Your task to perform on an android device: remove spam from my inbox in the gmail app Image 0: 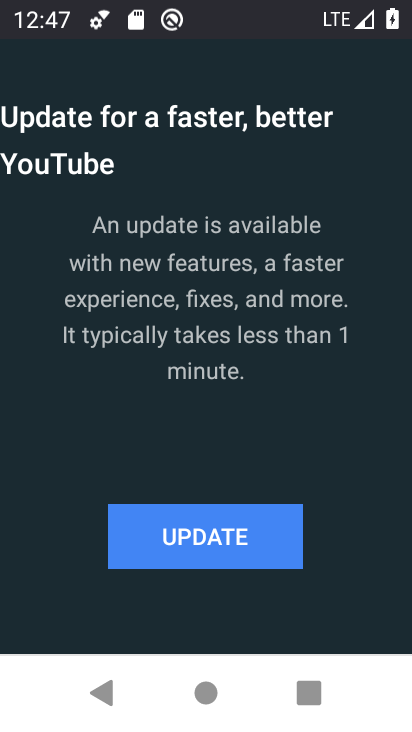
Step 0: press home button
Your task to perform on an android device: remove spam from my inbox in the gmail app Image 1: 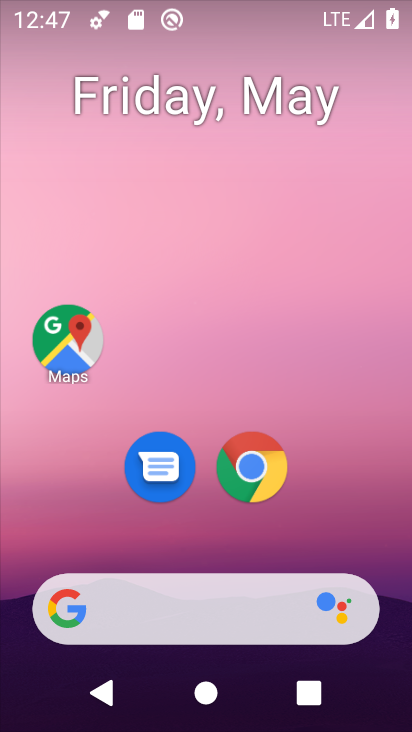
Step 1: drag from (351, 507) to (371, 119)
Your task to perform on an android device: remove spam from my inbox in the gmail app Image 2: 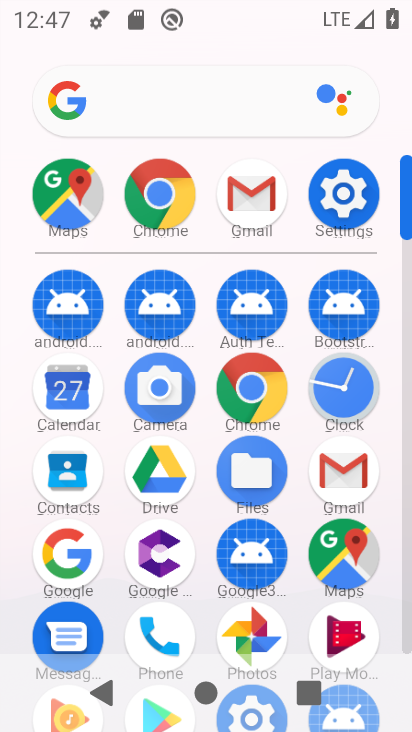
Step 2: click (268, 206)
Your task to perform on an android device: remove spam from my inbox in the gmail app Image 3: 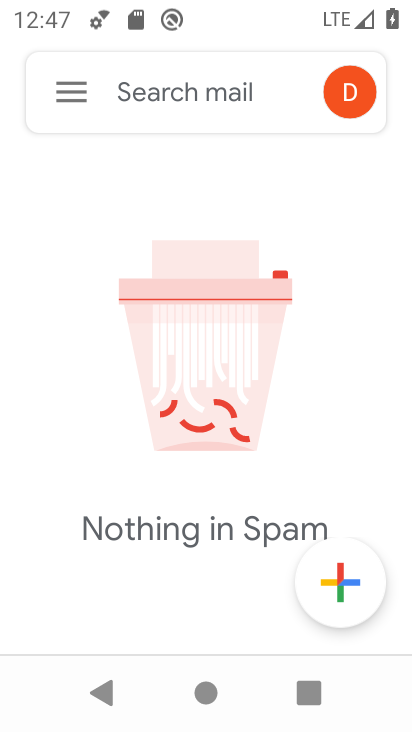
Step 3: click (80, 98)
Your task to perform on an android device: remove spam from my inbox in the gmail app Image 4: 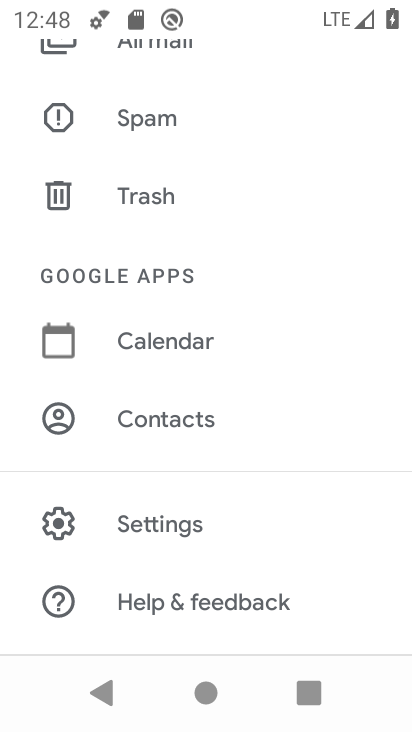
Step 4: click (157, 138)
Your task to perform on an android device: remove spam from my inbox in the gmail app Image 5: 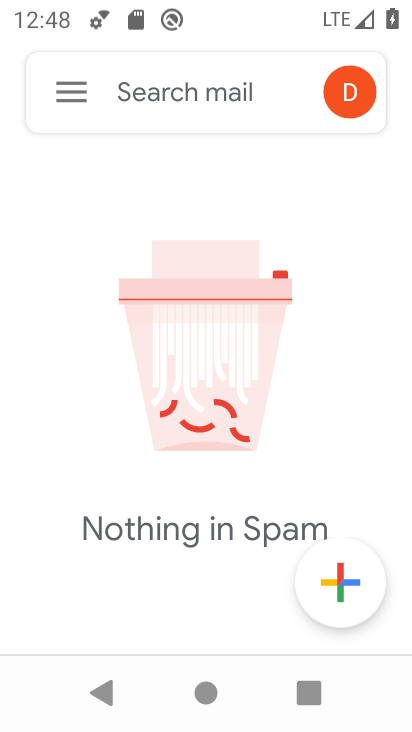
Step 5: task complete